Your task to perform on an android device: Check the weather Image 0: 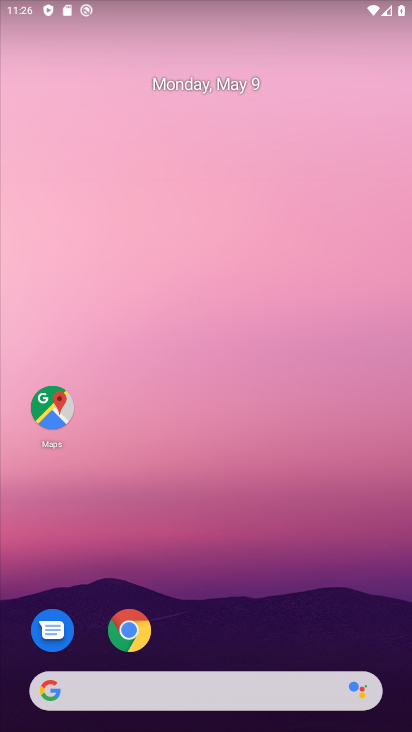
Step 0: click (51, 690)
Your task to perform on an android device: Check the weather Image 1: 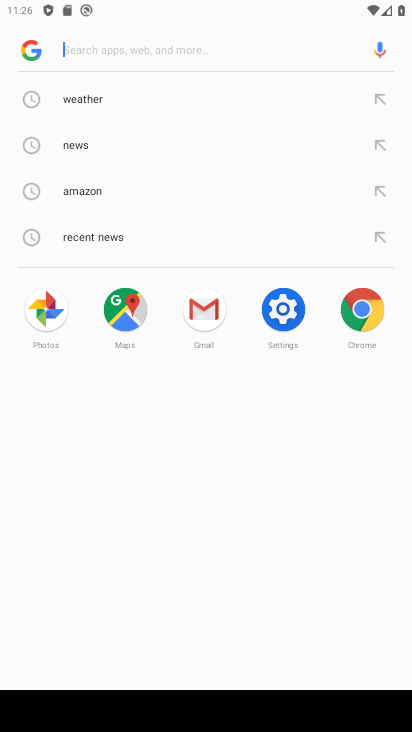
Step 1: click (102, 98)
Your task to perform on an android device: Check the weather Image 2: 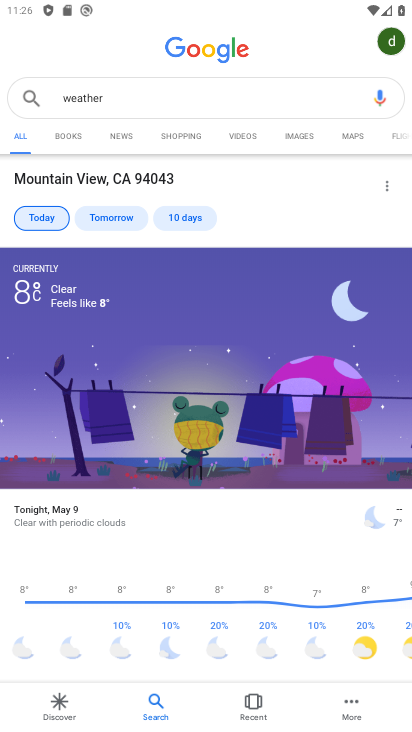
Step 2: task complete